Your task to perform on an android device: What's the weather? Image 0: 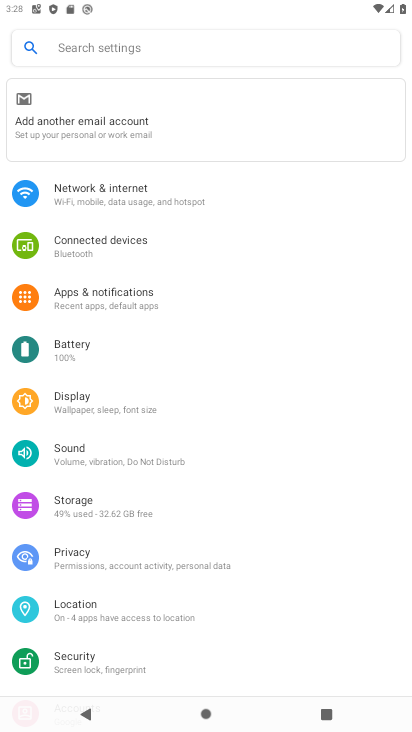
Step 0: press back button
Your task to perform on an android device: What's the weather? Image 1: 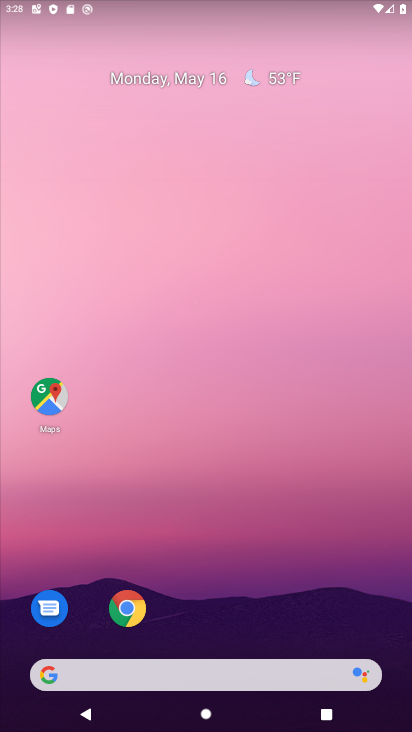
Step 1: drag from (224, 545) to (184, 101)
Your task to perform on an android device: What's the weather? Image 2: 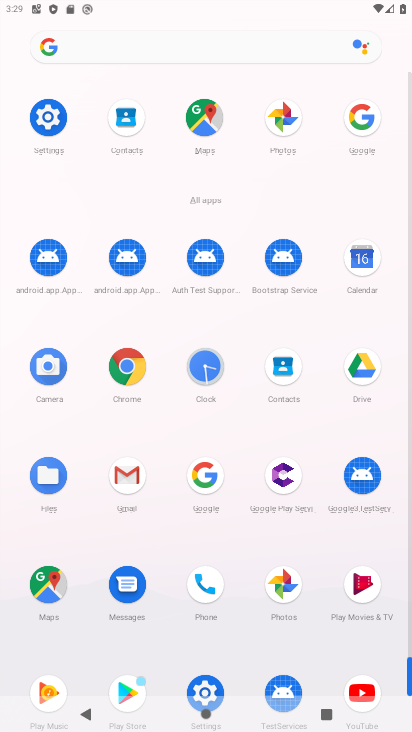
Step 2: click (206, 466)
Your task to perform on an android device: What's the weather? Image 3: 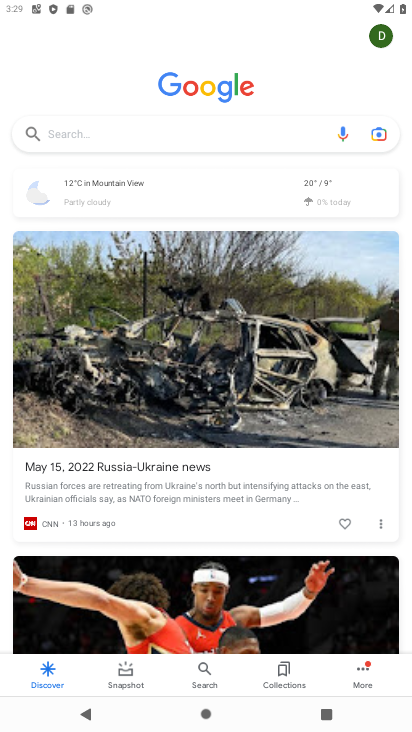
Step 3: click (164, 188)
Your task to perform on an android device: What's the weather? Image 4: 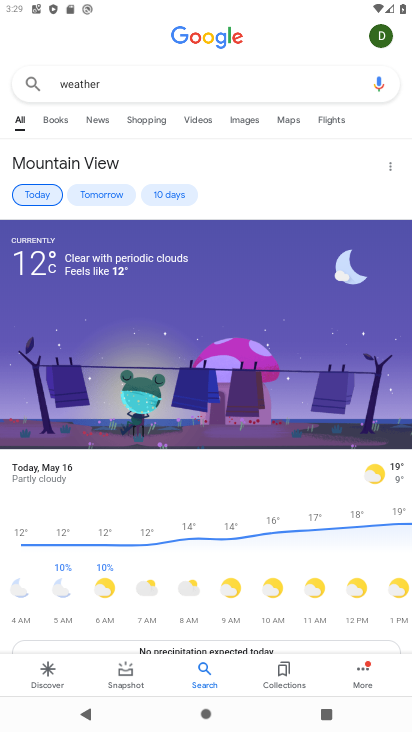
Step 4: task complete